Your task to perform on an android device: Open Amazon Image 0: 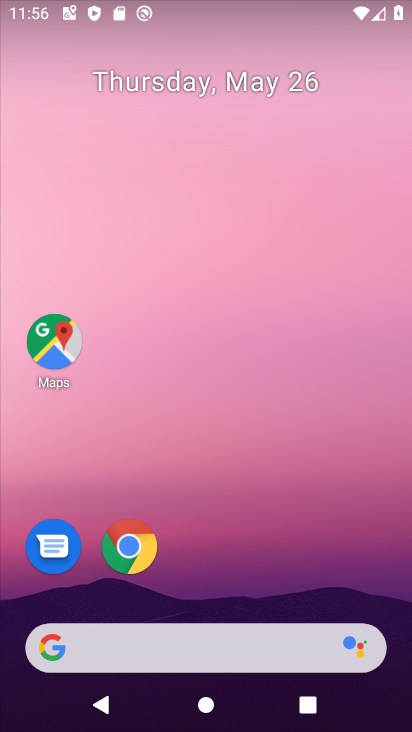
Step 0: click (129, 540)
Your task to perform on an android device: Open Amazon Image 1: 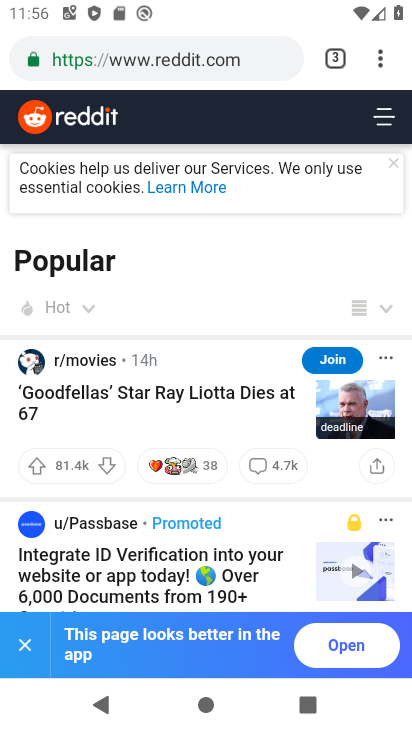
Step 1: click (376, 47)
Your task to perform on an android device: Open Amazon Image 2: 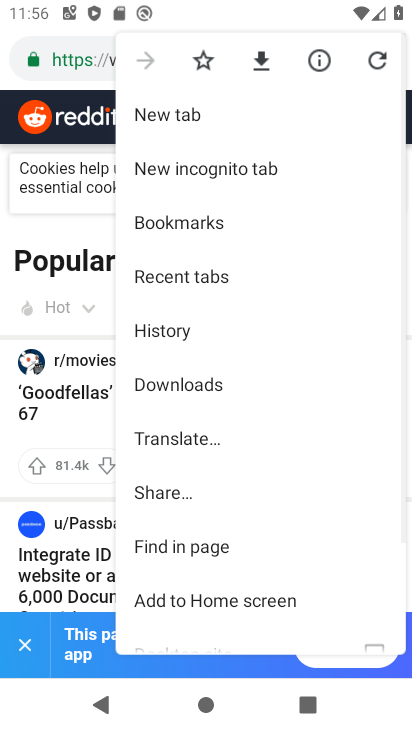
Step 2: click (175, 119)
Your task to perform on an android device: Open Amazon Image 3: 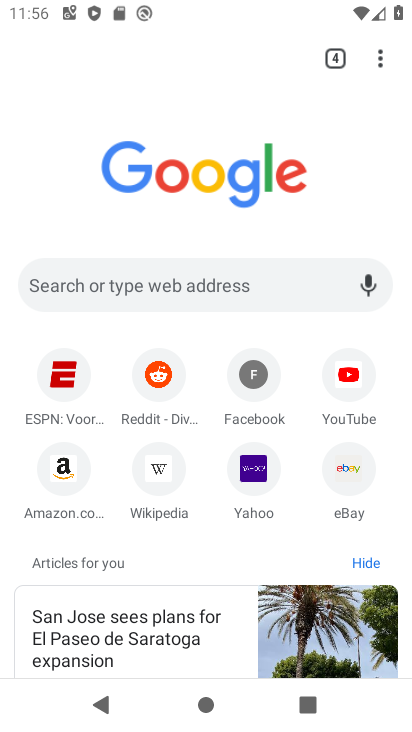
Step 3: click (44, 464)
Your task to perform on an android device: Open Amazon Image 4: 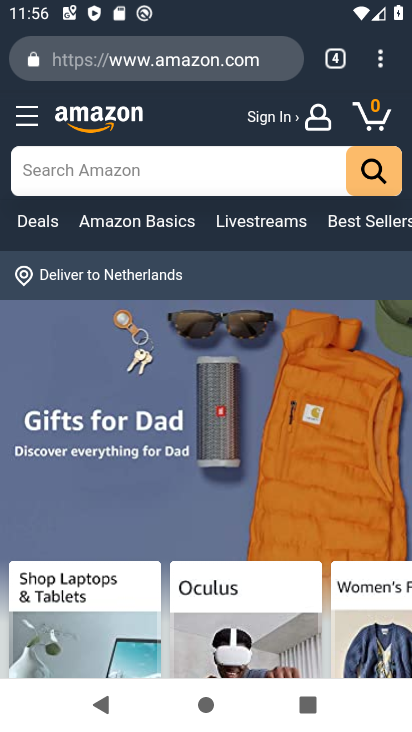
Step 4: task complete